Your task to perform on an android device: What's the weather going to be tomorrow? Image 0: 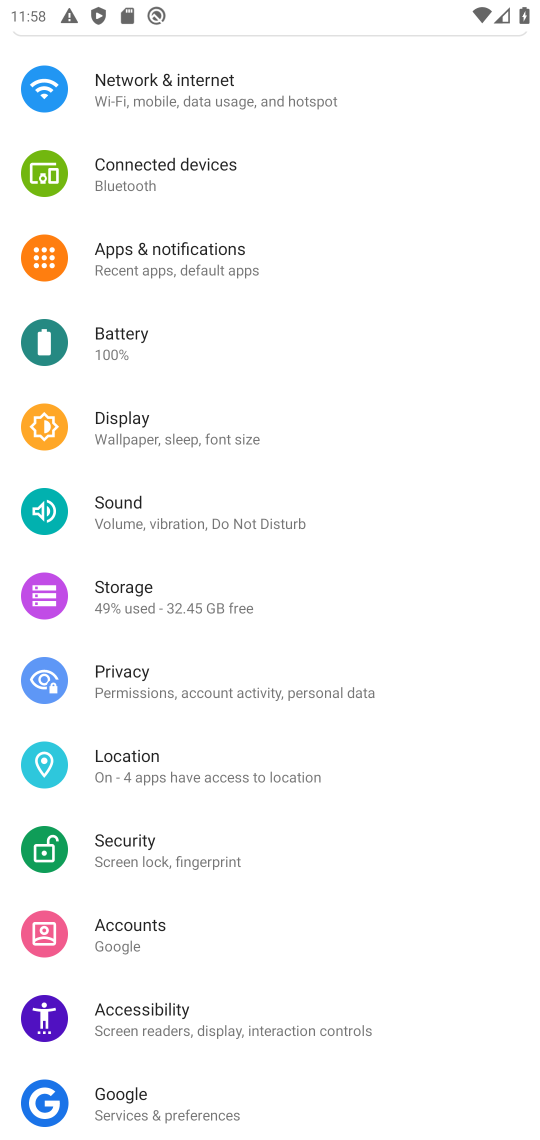
Step 0: press home button
Your task to perform on an android device: What's the weather going to be tomorrow? Image 1: 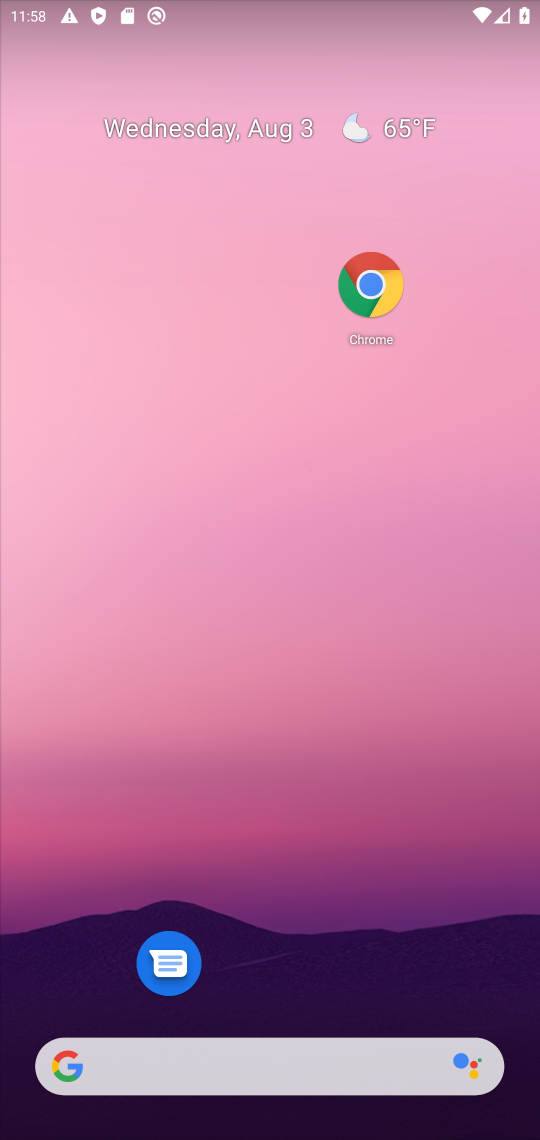
Step 1: drag from (361, 880) to (332, 185)
Your task to perform on an android device: What's the weather going to be tomorrow? Image 2: 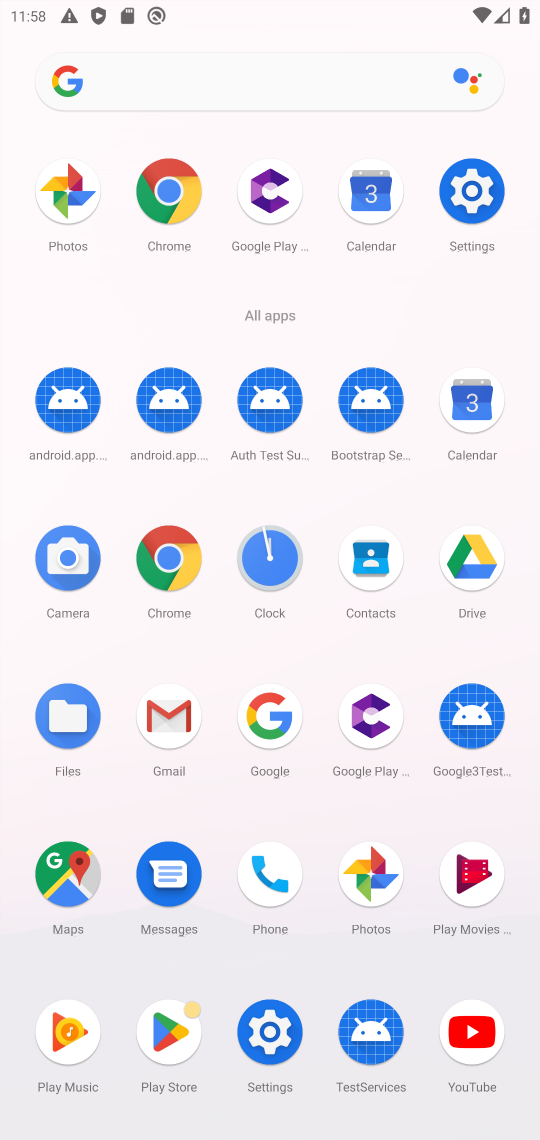
Step 2: click (167, 175)
Your task to perform on an android device: What's the weather going to be tomorrow? Image 3: 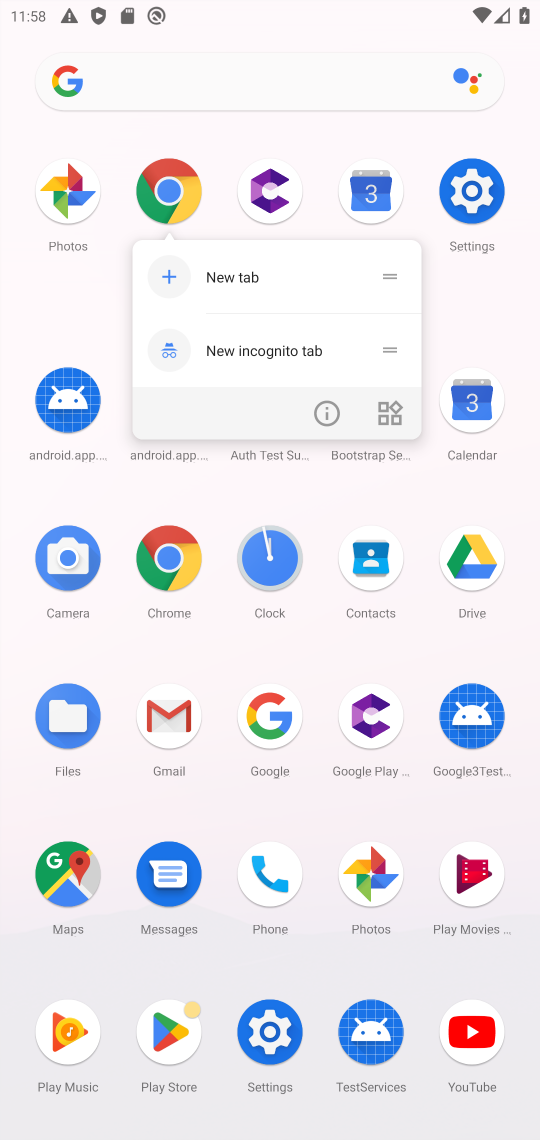
Step 3: click (153, 179)
Your task to perform on an android device: What's the weather going to be tomorrow? Image 4: 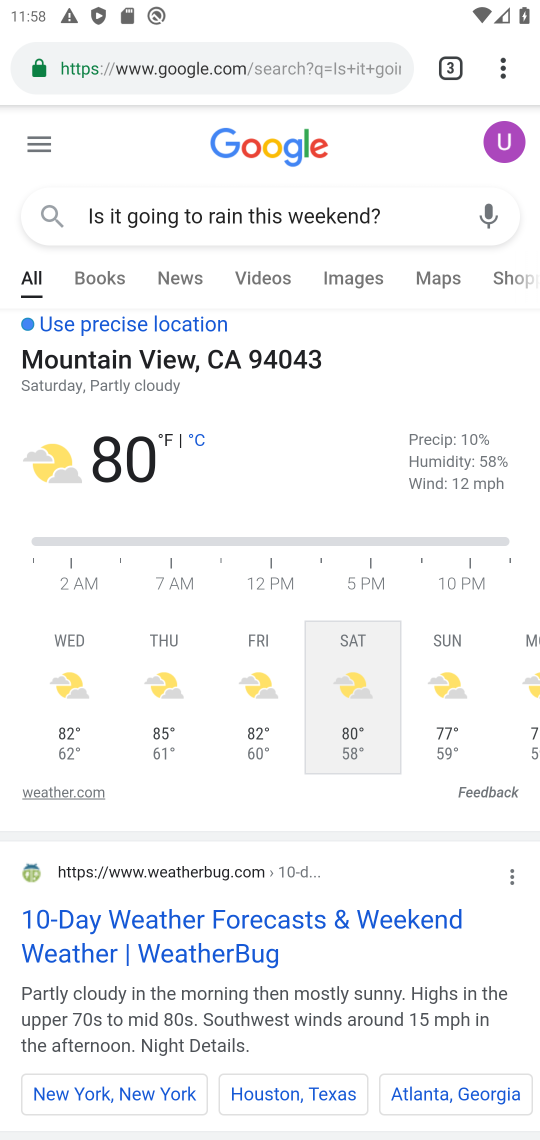
Step 4: click (502, 67)
Your task to perform on an android device: What's the weather going to be tomorrow? Image 5: 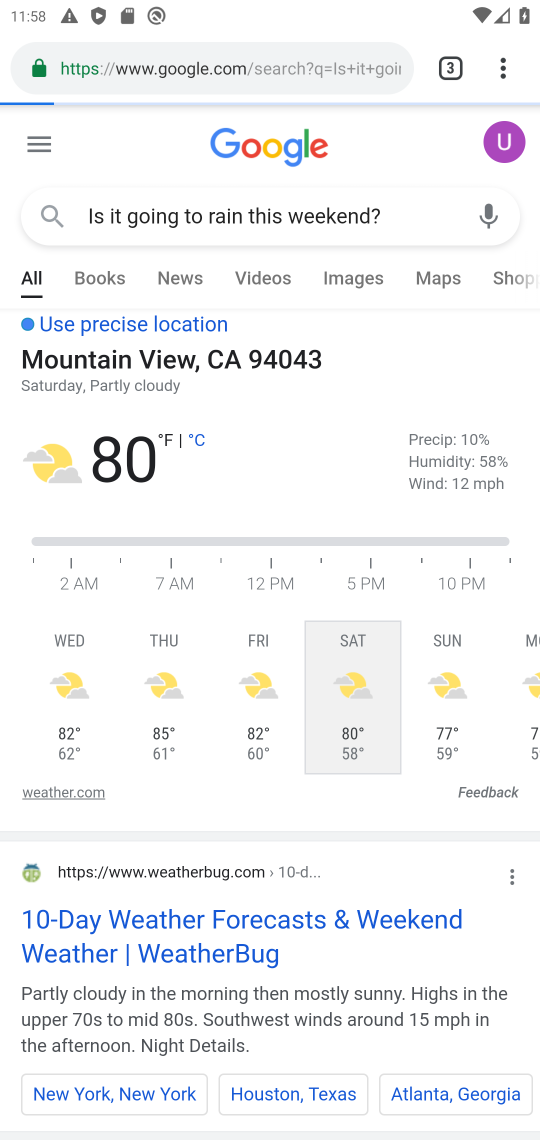
Step 5: click (502, 67)
Your task to perform on an android device: What's the weather going to be tomorrow? Image 6: 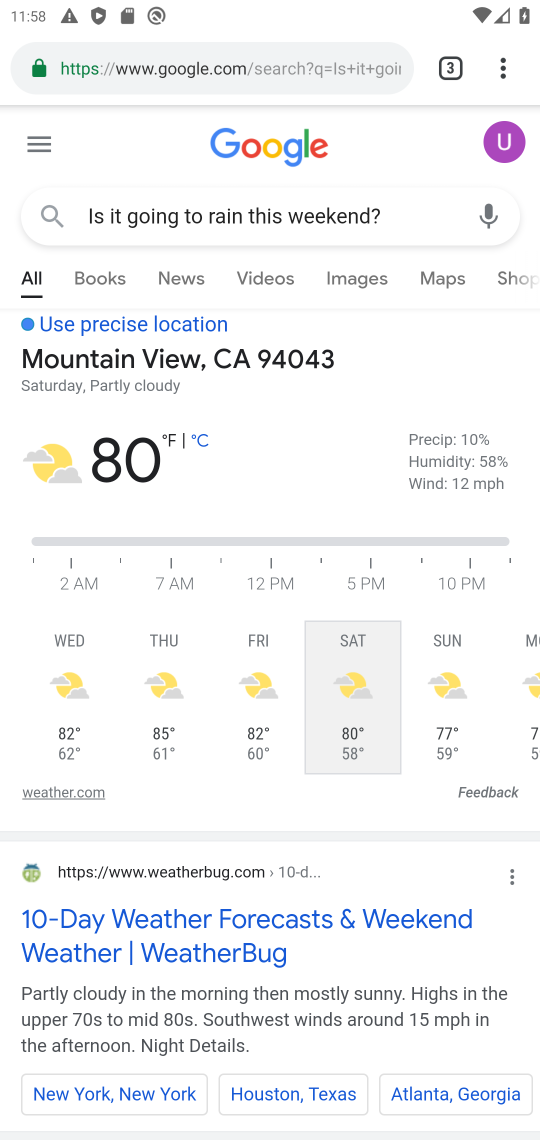
Step 6: click (490, 64)
Your task to perform on an android device: What's the weather going to be tomorrow? Image 7: 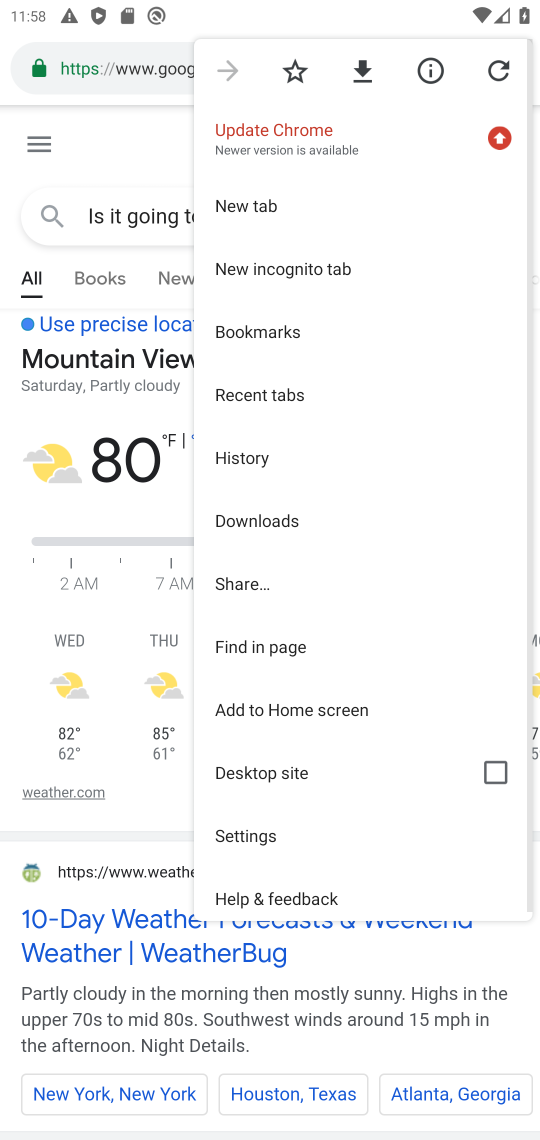
Step 7: click (282, 196)
Your task to perform on an android device: What's the weather going to be tomorrow? Image 8: 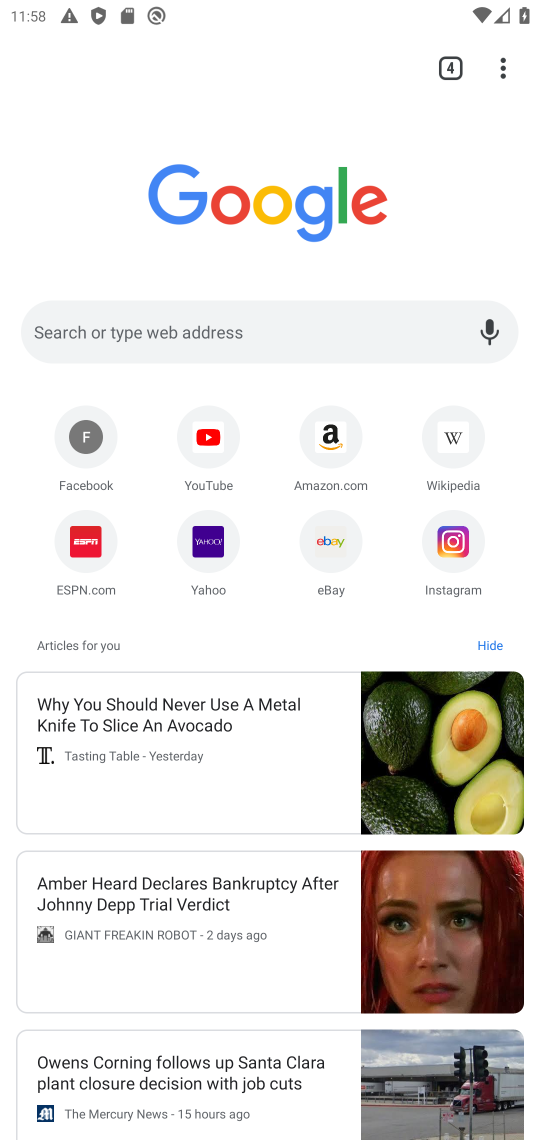
Step 8: click (257, 333)
Your task to perform on an android device: What's the weather going to be tomorrow? Image 9: 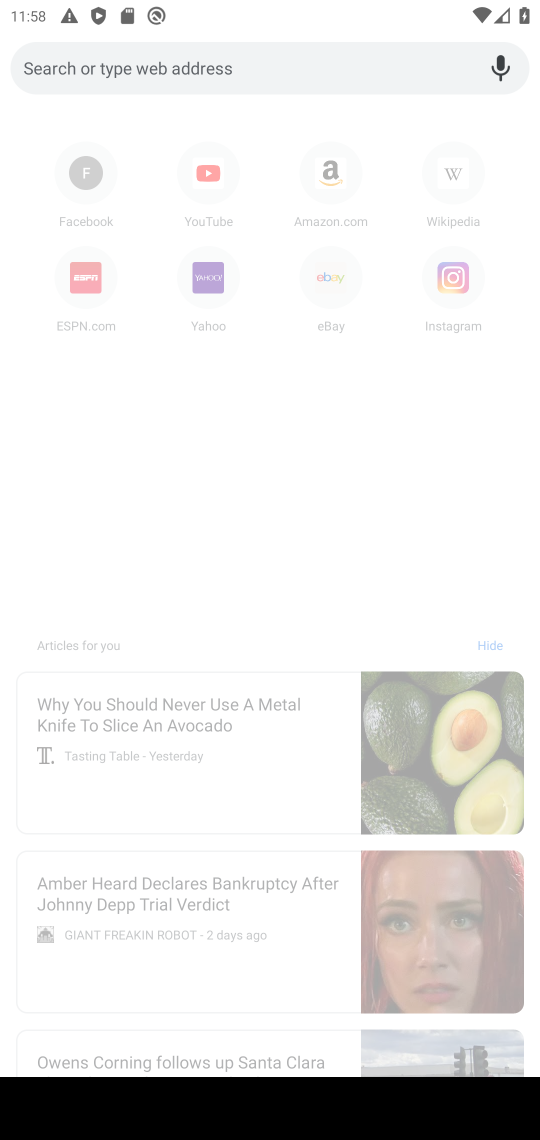
Step 9: type "What's the weather going to be tomorrow? "
Your task to perform on an android device: What's the weather going to be tomorrow? Image 10: 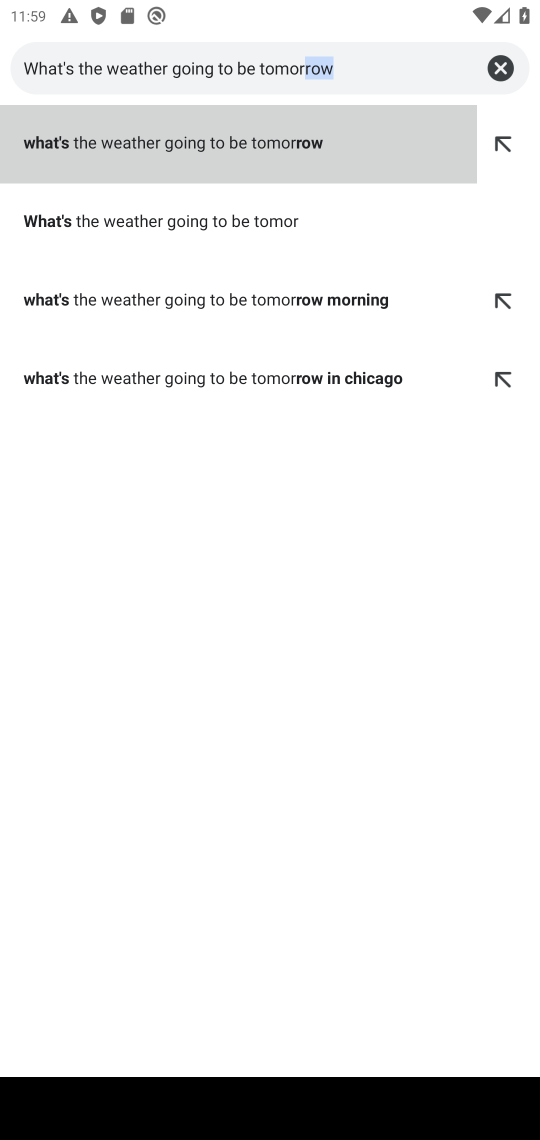
Step 10: click (189, 53)
Your task to perform on an android device: What's the weather going to be tomorrow? Image 11: 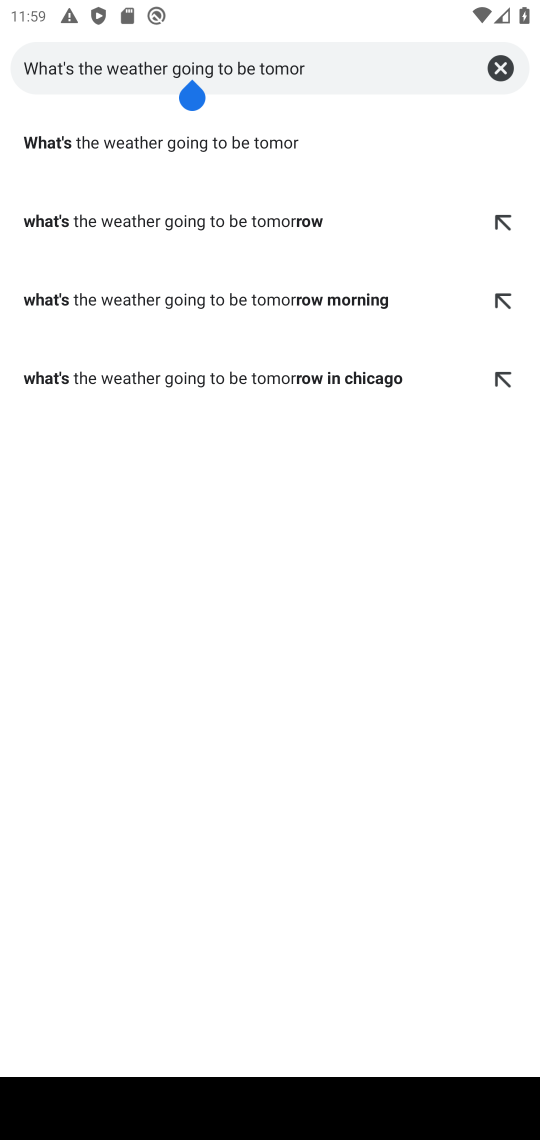
Step 11: click (249, 126)
Your task to perform on an android device: What's the weather going to be tomorrow? Image 12: 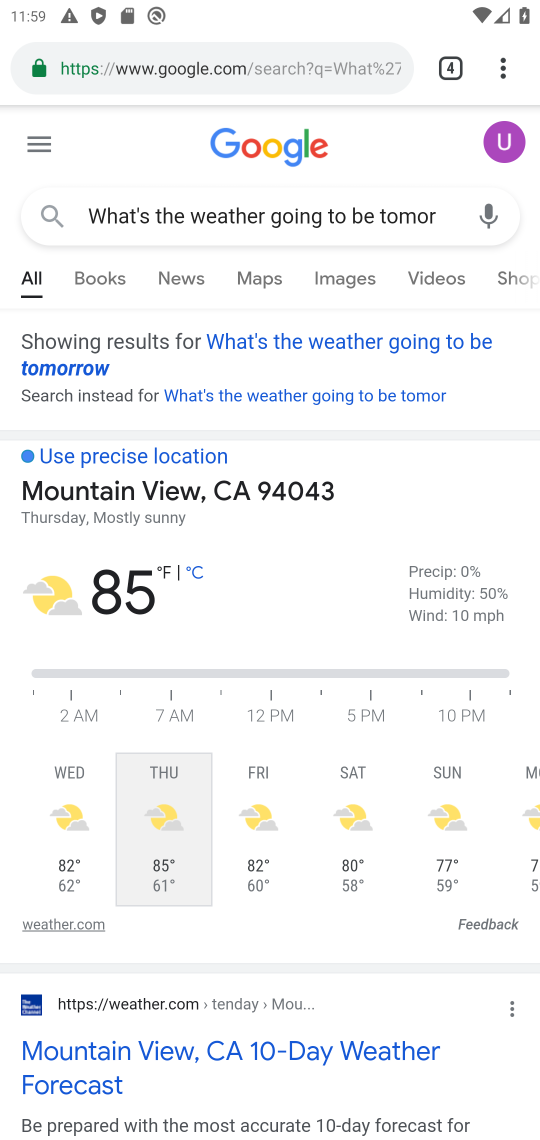
Step 12: task complete